Your task to perform on an android device: Open maps Image 0: 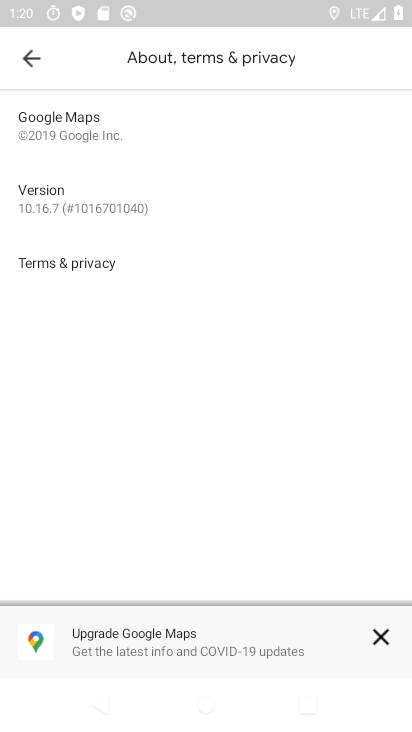
Step 0: press home button
Your task to perform on an android device: Open maps Image 1: 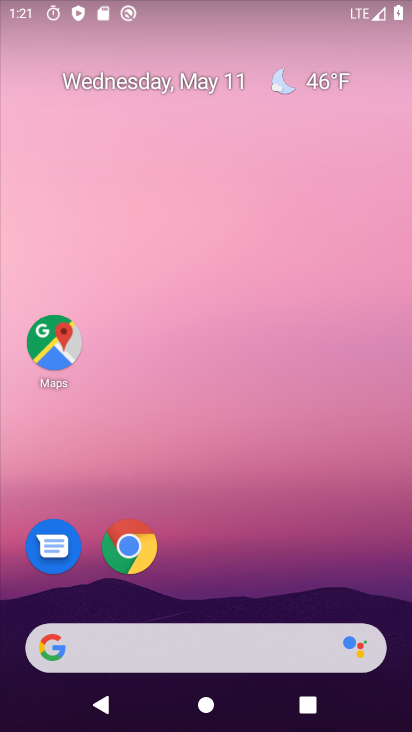
Step 1: drag from (260, 672) to (320, 198)
Your task to perform on an android device: Open maps Image 2: 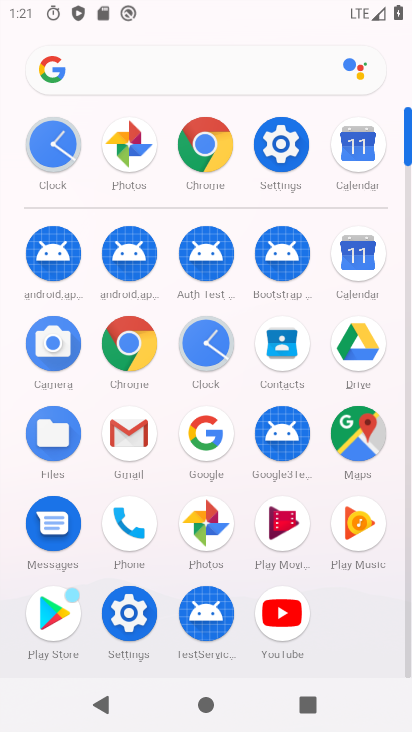
Step 2: click (346, 436)
Your task to perform on an android device: Open maps Image 3: 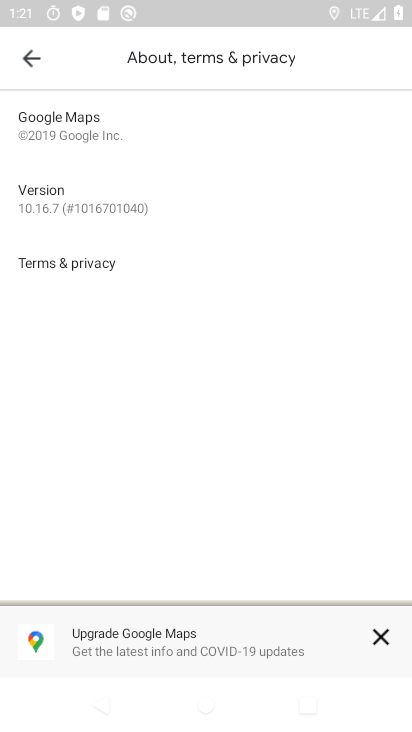
Step 3: click (21, 68)
Your task to perform on an android device: Open maps Image 4: 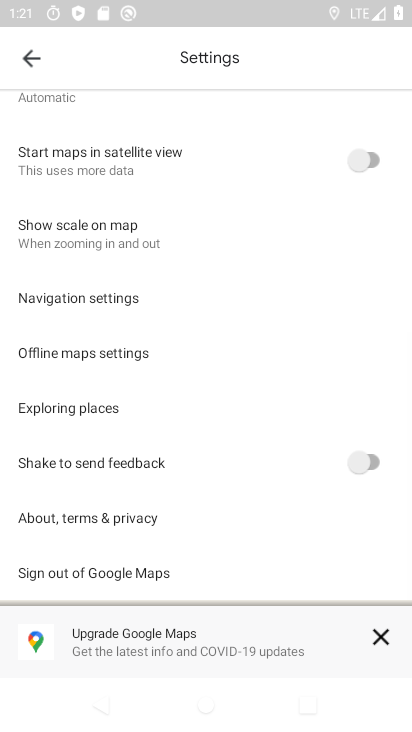
Step 4: click (27, 56)
Your task to perform on an android device: Open maps Image 5: 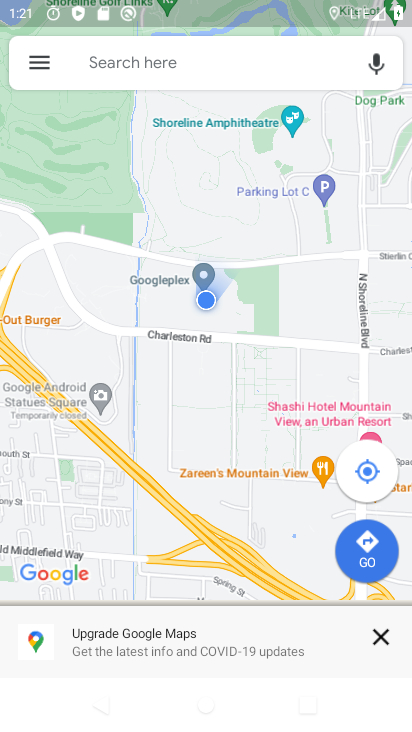
Step 5: click (195, 290)
Your task to perform on an android device: Open maps Image 6: 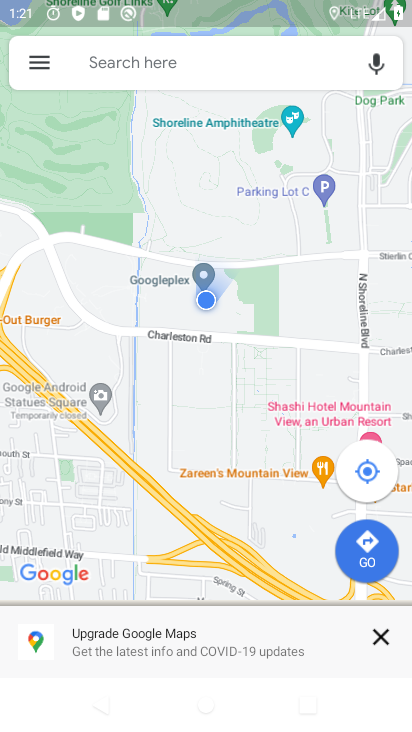
Step 6: task complete